Your task to perform on an android device: toggle javascript in the chrome app Image 0: 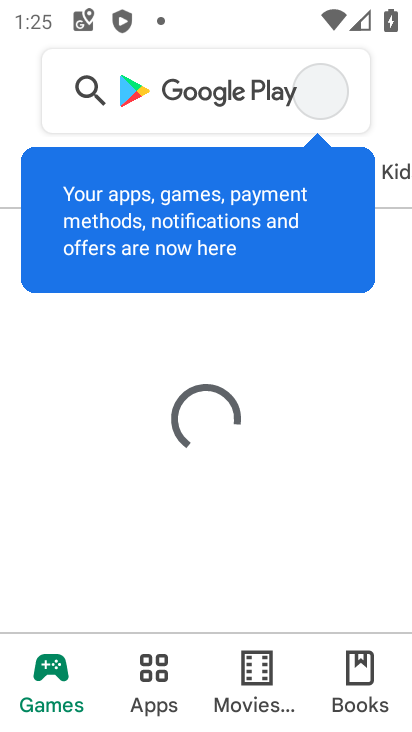
Step 0: press home button
Your task to perform on an android device: toggle javascript in the chrome app Image 1: 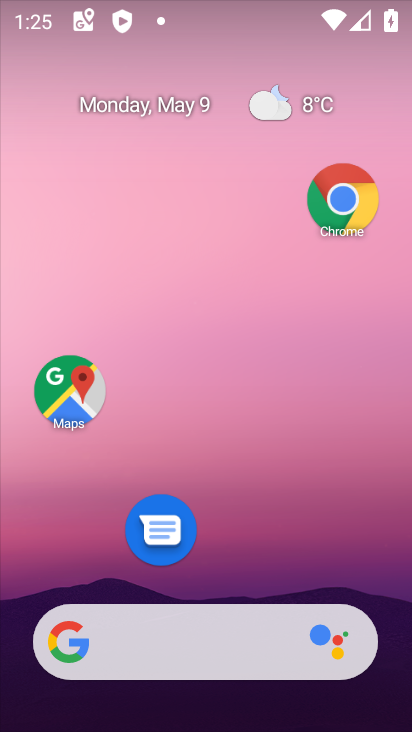
Step 1: drag from (250, 556) to (247, 226)
Your task to perform on an android device: toggle javascript in the chrome app Image 2: 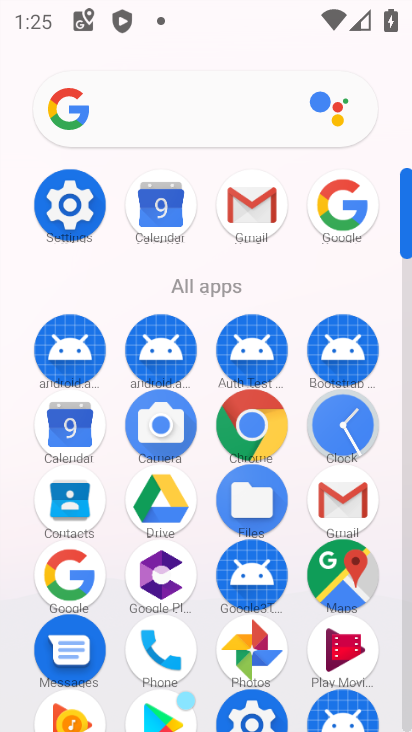
Step 2: click (250, 425)
Your task to perform on an android device: toggle javascript in the chrome app Image 3: 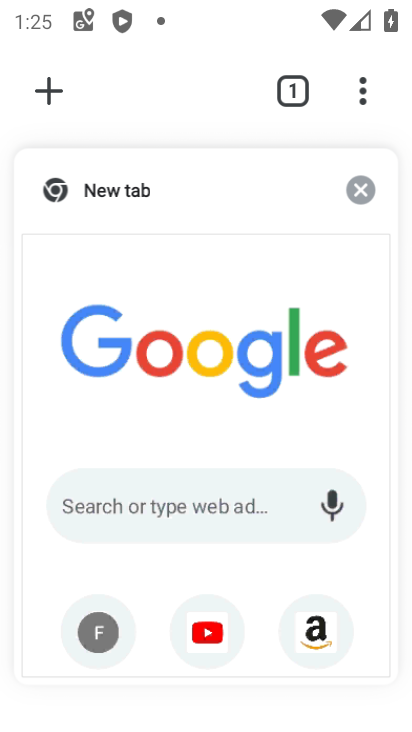
Step 3: press back button
Your task to perform on an android device: toggle javascript in the chrome app Image 4: 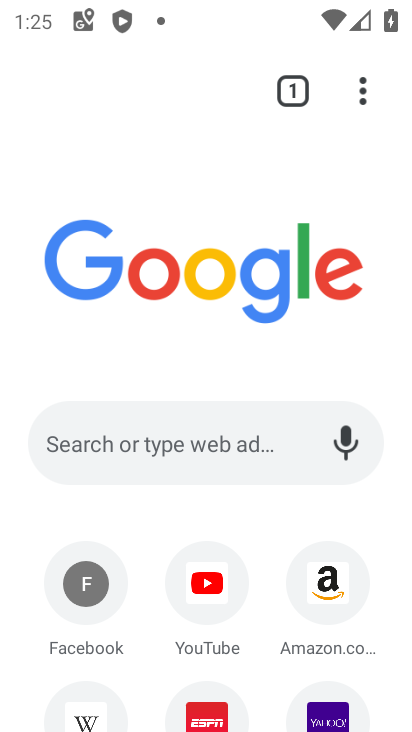
Step 4: click (362, 96)
Your task to perform on an android device: toggle javascript in the chrome app Image 5: 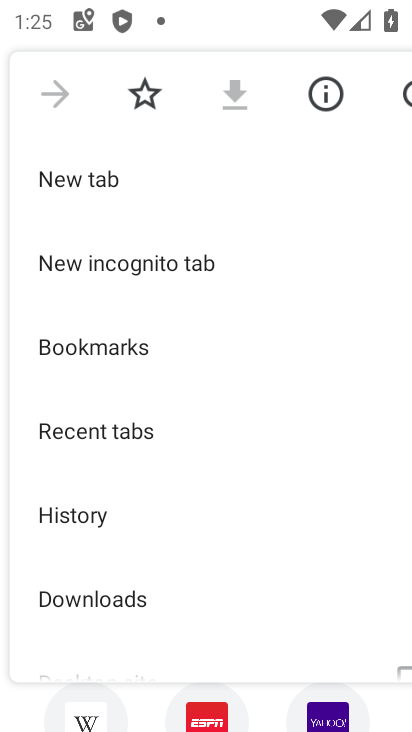
Step 5: drag from (192, 509) to (222, 151)
Your task to perform on an android device: toggle javascript in the chrome app Image 6: 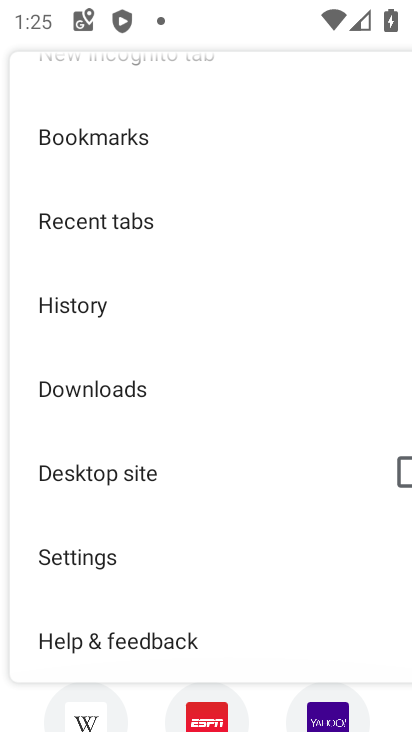
Step 6: click (135, 557)
Your task to perform on an android device: toggle javascript in the chrome app Image 7: 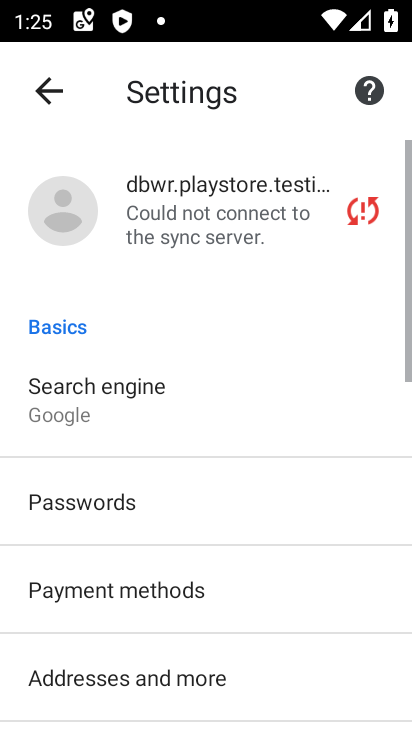
Step 7: drag from (214, 519) to (253, 1)
Your task to perform on an android device: toggle javascript in the chrome app Image 8: 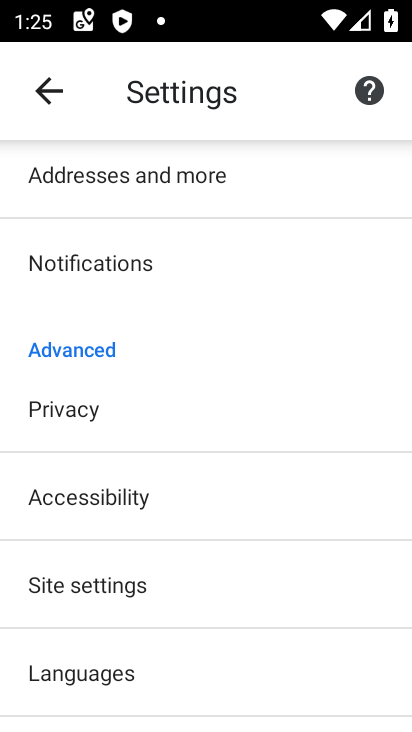
Step 8: click (117, 587)
Your task to perform on an android device: toggle javascript in the chrome app Image 9: 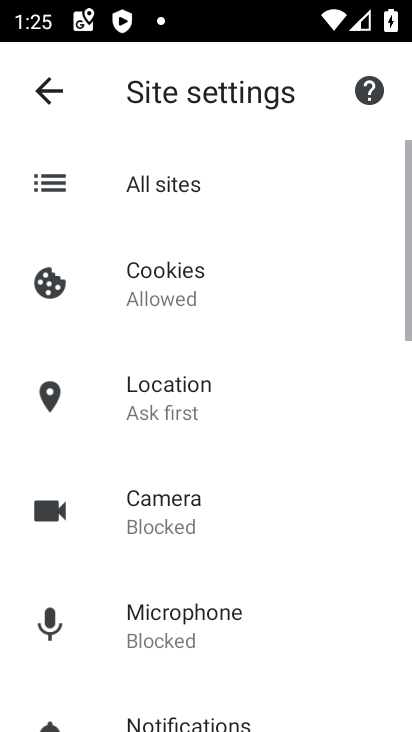
Step 9: drag from (229, 562) to (245, 147)
Your task to perform on an android device: toggle javascript in the chrome app Image 10: 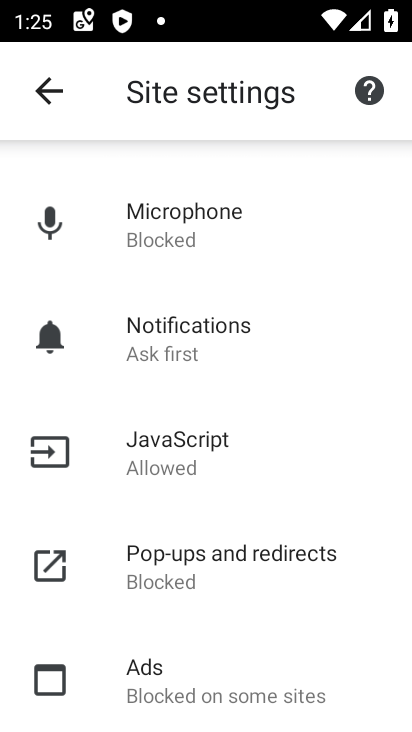
Step 10: click (185, 454)
Your task to perform on an android device: toggle javascript in the chrome app Image 11: 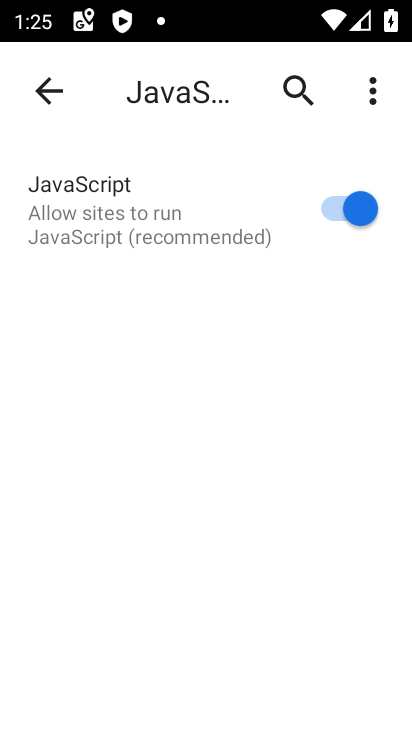
Step 11: click (338, 211)
Your task to perform on an android device: toggle javascript in the chrome app Image 12: 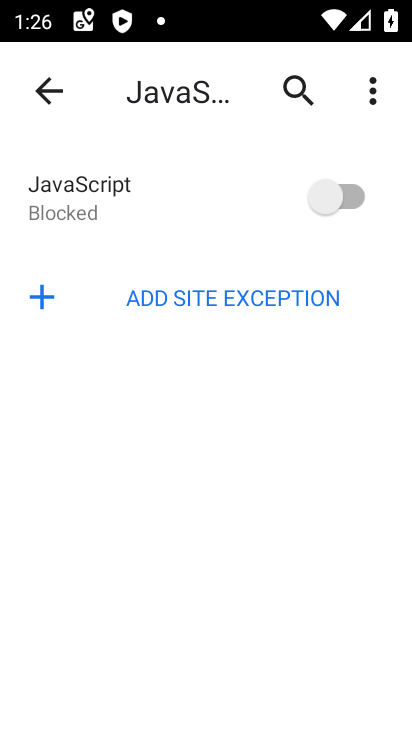
Step 12: task complete